Your task to perform on an android device: turn off location Image 0: 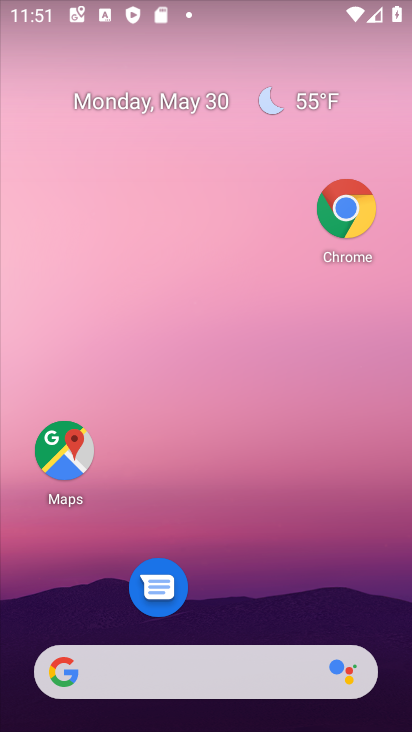
Step 0: drag from (203, 628) to (238, 108)
Your task to perform on an android device: turn off location Image 1: 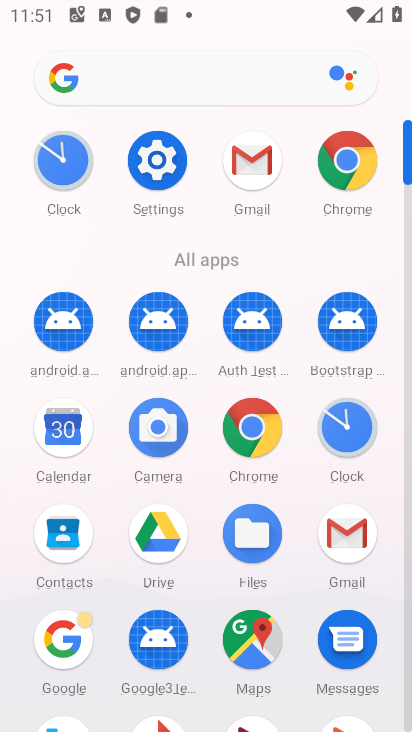
Step 1: click (152, 165)
Your task to perform on an android device: turn off location Image 2: 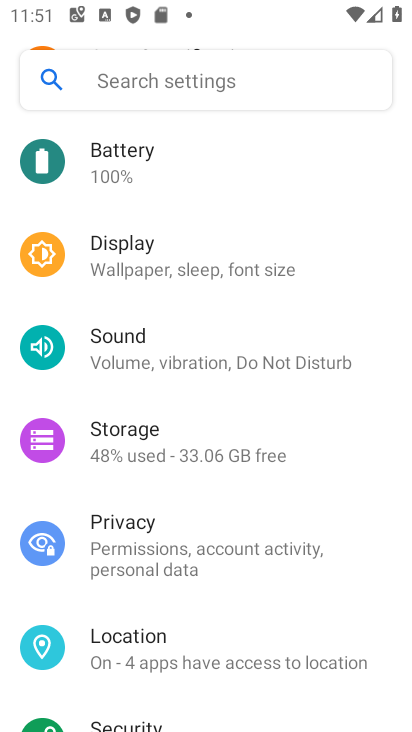
Step 2: click (179, 660)
Your task to perform on an android device: turn off location Image 3: 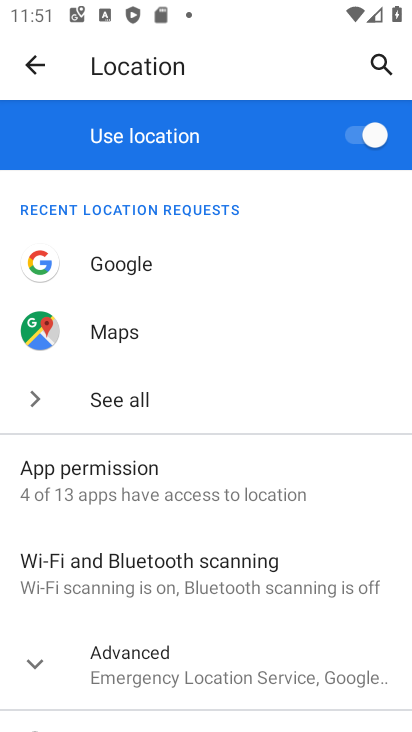
Step 3: click (359, 128)
Your task to perform on an android device: turn off location Image 4: 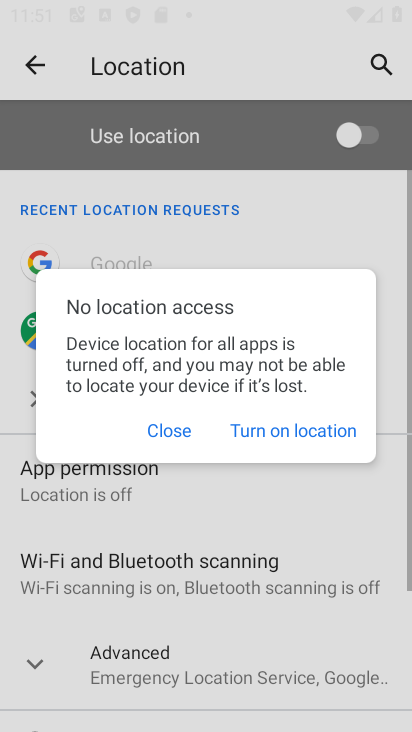
Step 4: task complete